Your task to perform on an android device: change the clock display to show seconds Image 0: 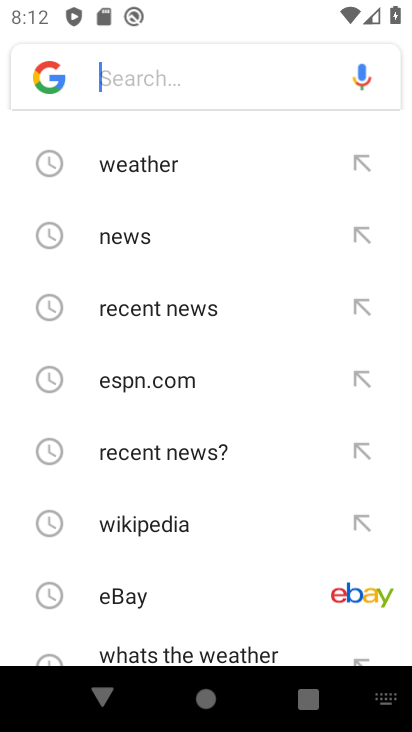
Step 0: press back button
Your task to perform on an android device: change the clock display to show seconds Image 1: 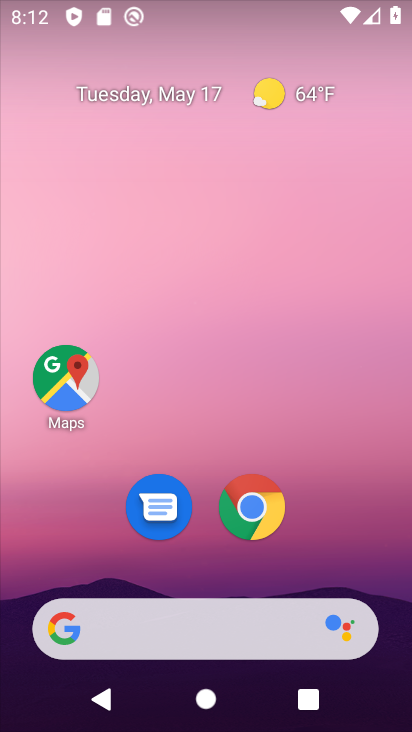
Step 1: drag from (337, 552) to (206, 140)
Your task to perform on an android device: change the clock display to show seconds Image 2: 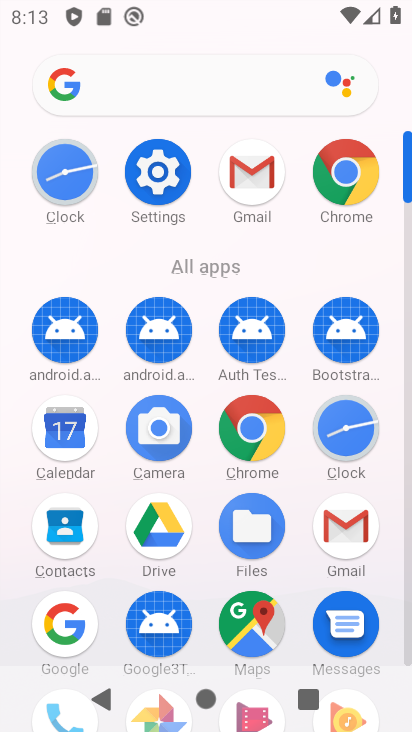
Step 2: click (64, 171)
Your task to perform on an android device: change the clock display to show seconds Image 3: 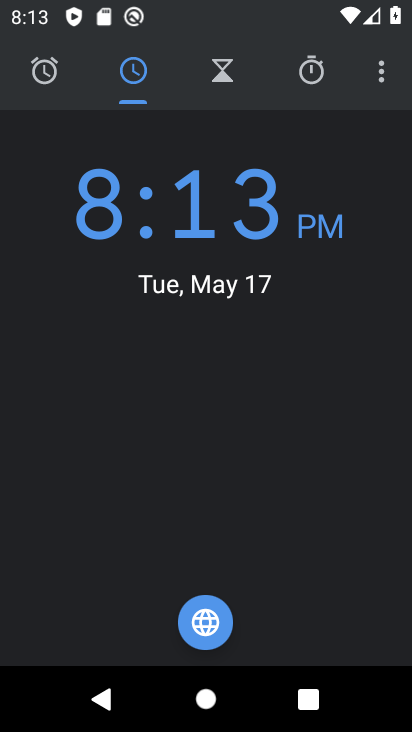
Step 3: click (383, 72)
Your task to perform on an android device: change the clock display to show seconds Image 4: 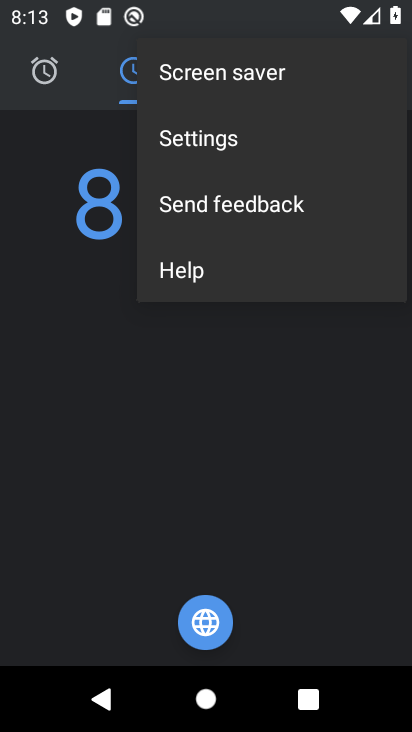
Step 4: click (222, 145)
Your task to perform on an android device: change the clock display to show seconds Image 5: 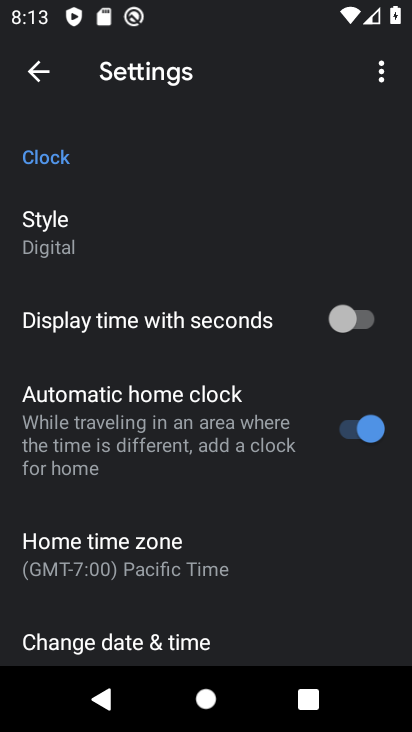
Step 5: click (332, 328)
Your task to perform on an android device: change the clock display to show seconds Image 6: 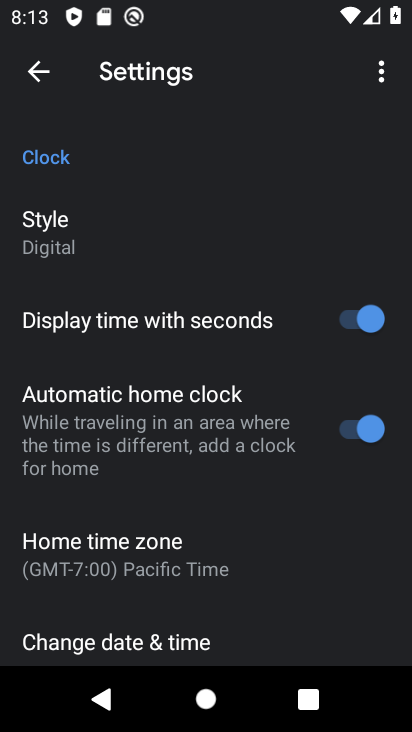
Step 6: task complete